Your task to perform on an android device: uninstall "TextNow: Call + Text Unlimited" Image 0: 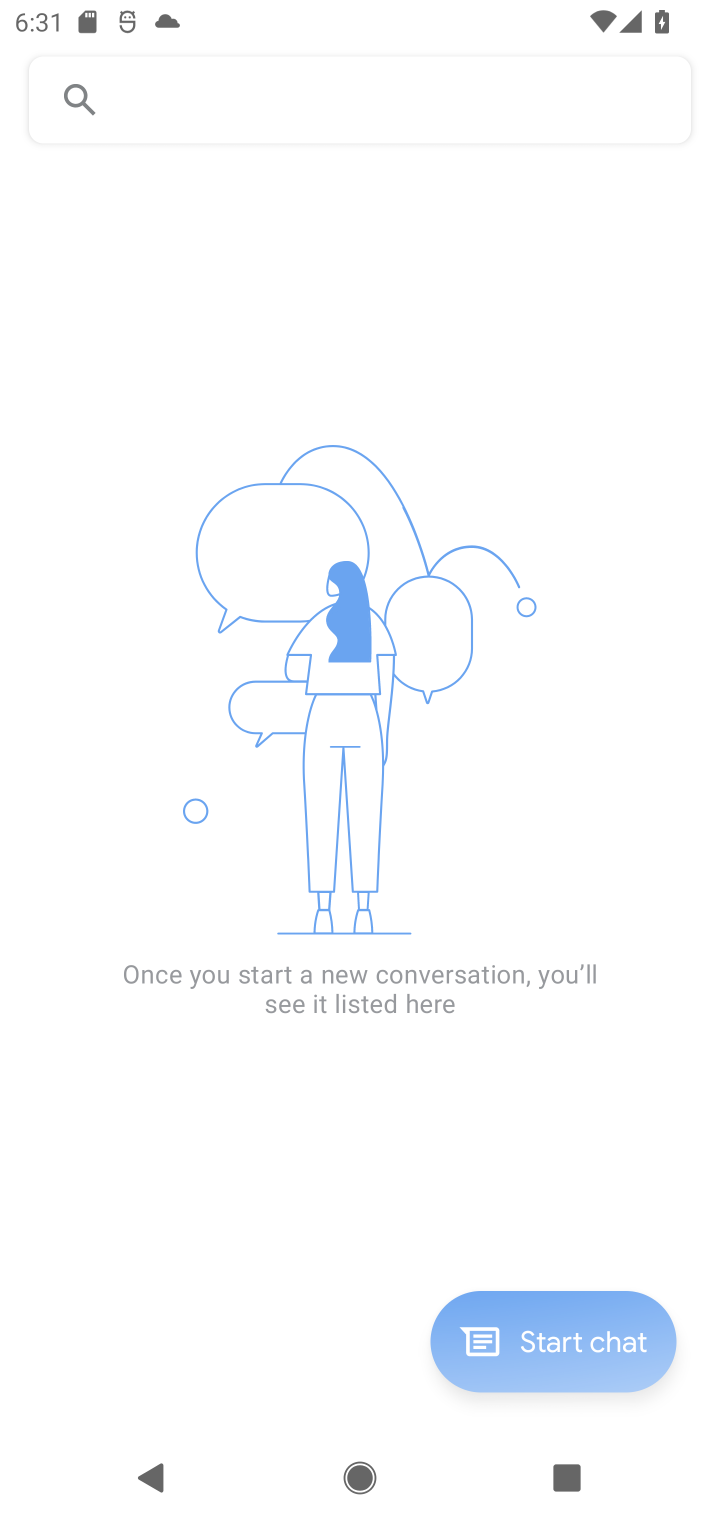
Step 0: press home button
Your task to perform on an android device: uninstall "TextNow: Call + Text Unlimited" Image 1: 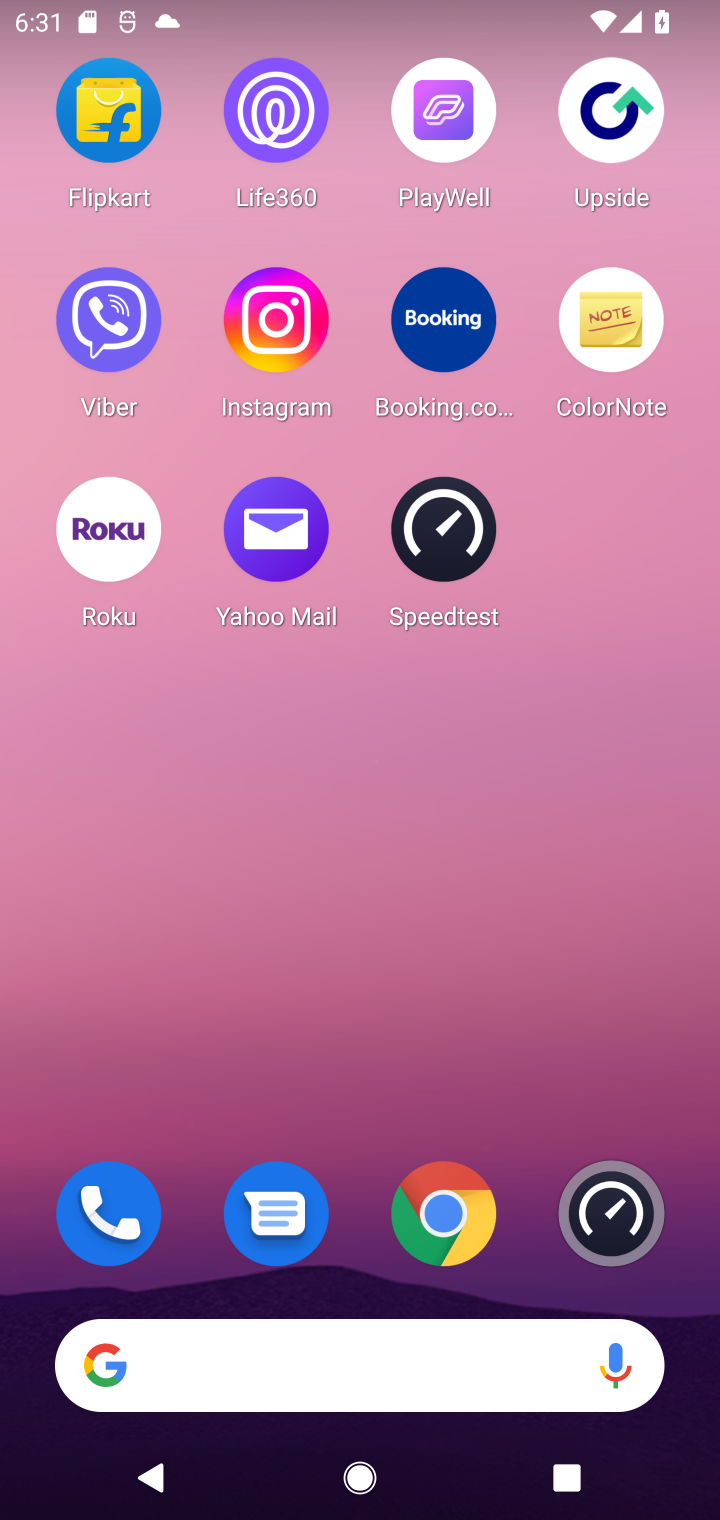
Step 1: drag from (357, 1190) to (413, 295)
Your task to perform on an android device: uninstall "TextNow: Call + Text Unlimited" Image 2: 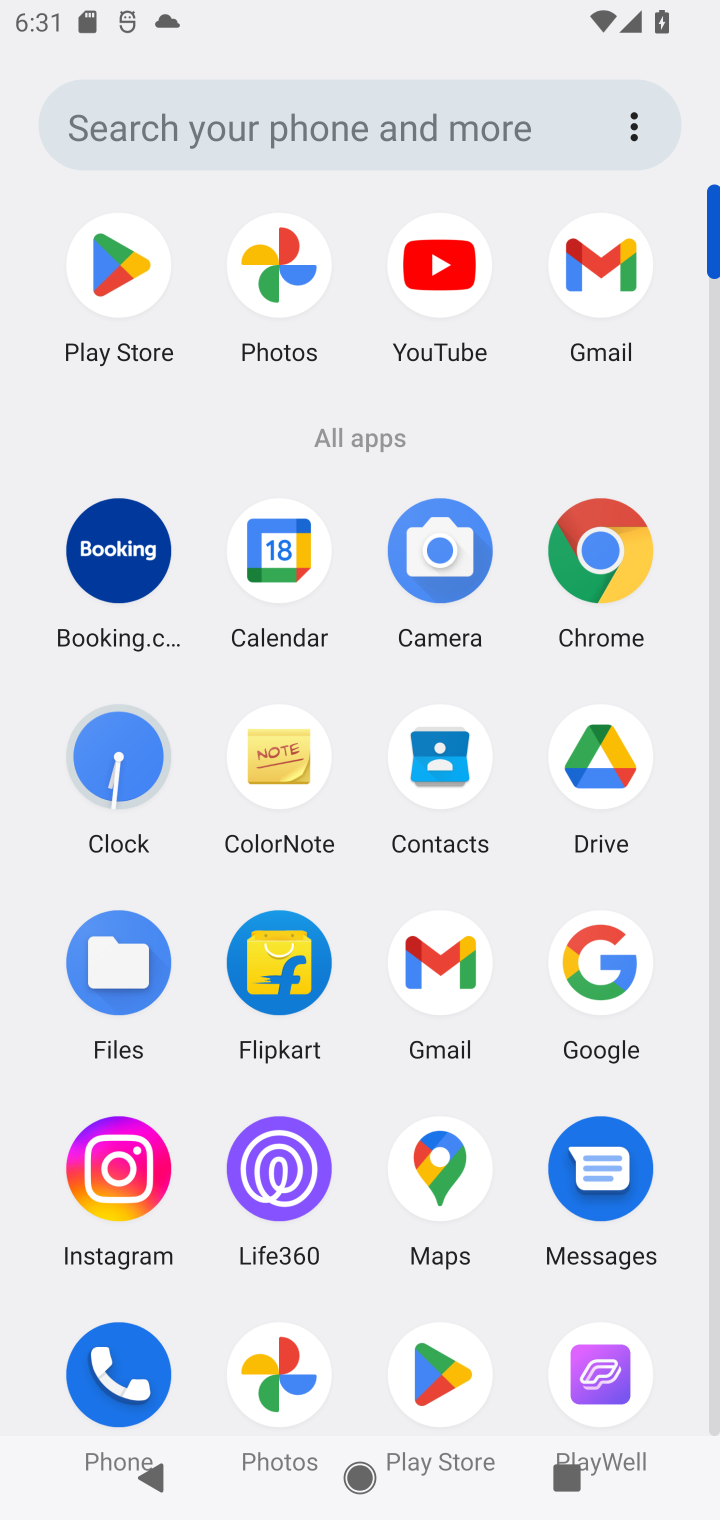
Step 2: click (431, 1363)
Your task to perform on an android device: uninstall "TextNow: Call + Text Unlimited" Image 3: 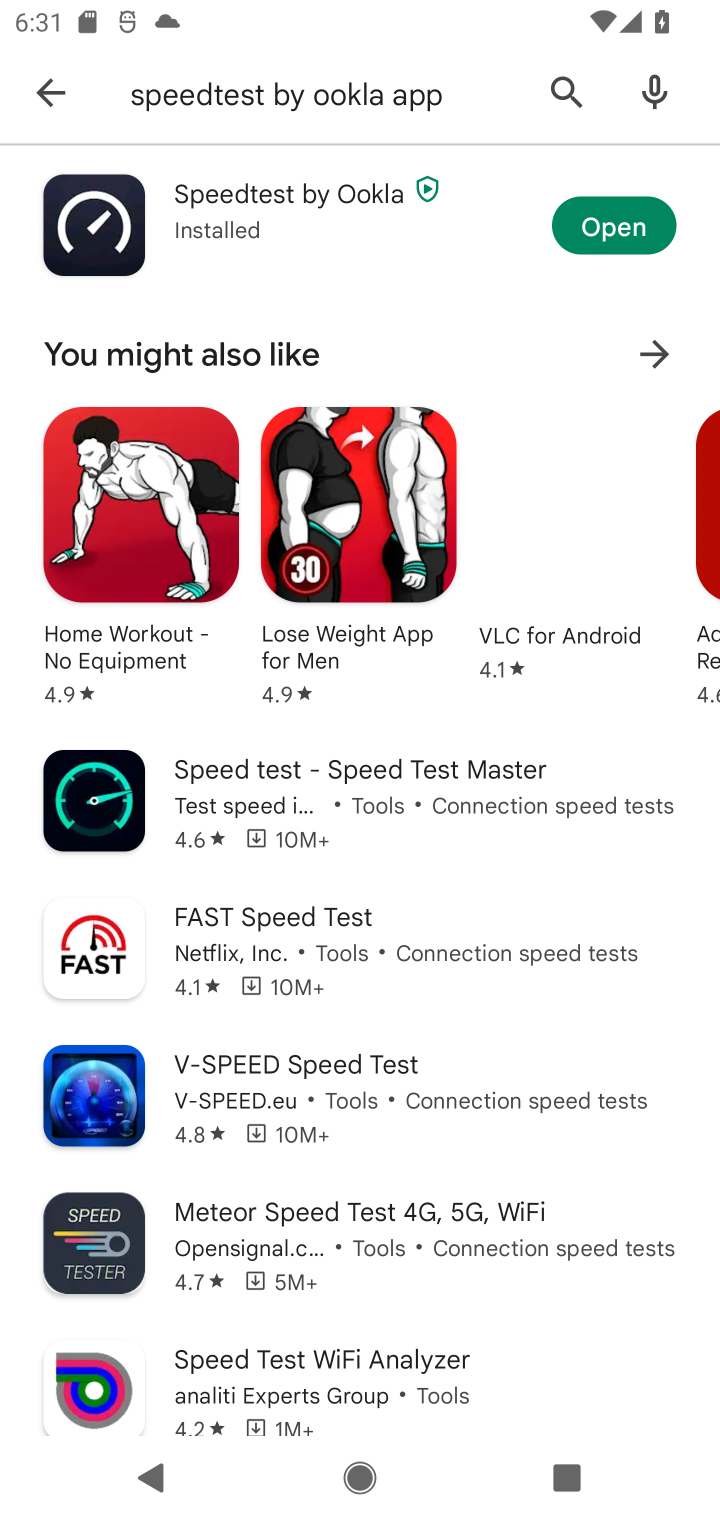
Step 3: click (557, 97)
Your task to perform on an android device: uninstall "TextNow: Call + Text Unlimited" Image 4: 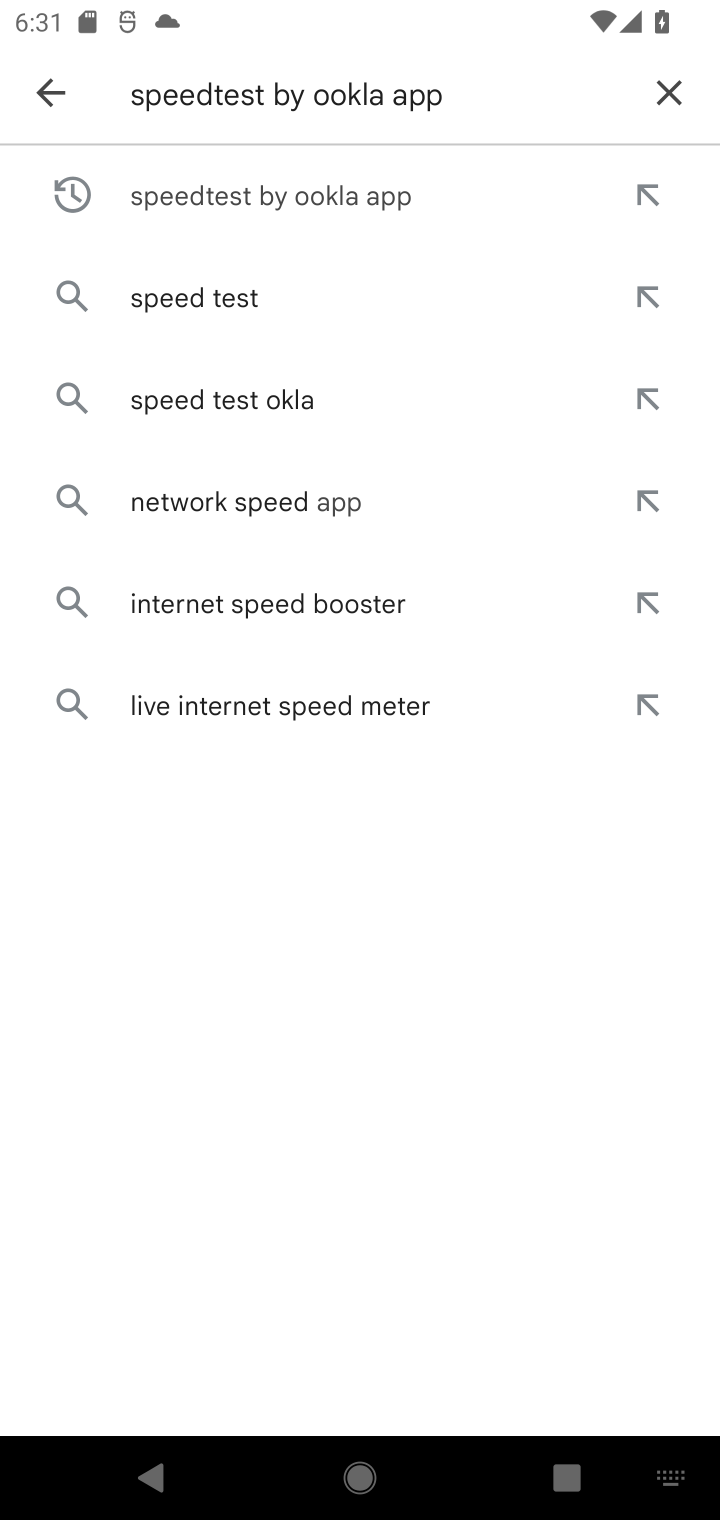
Step 4: click (663, 95)
Your task to perform on an android device: uninstall "TextNow: Call + Text Unlimited" Image 5: 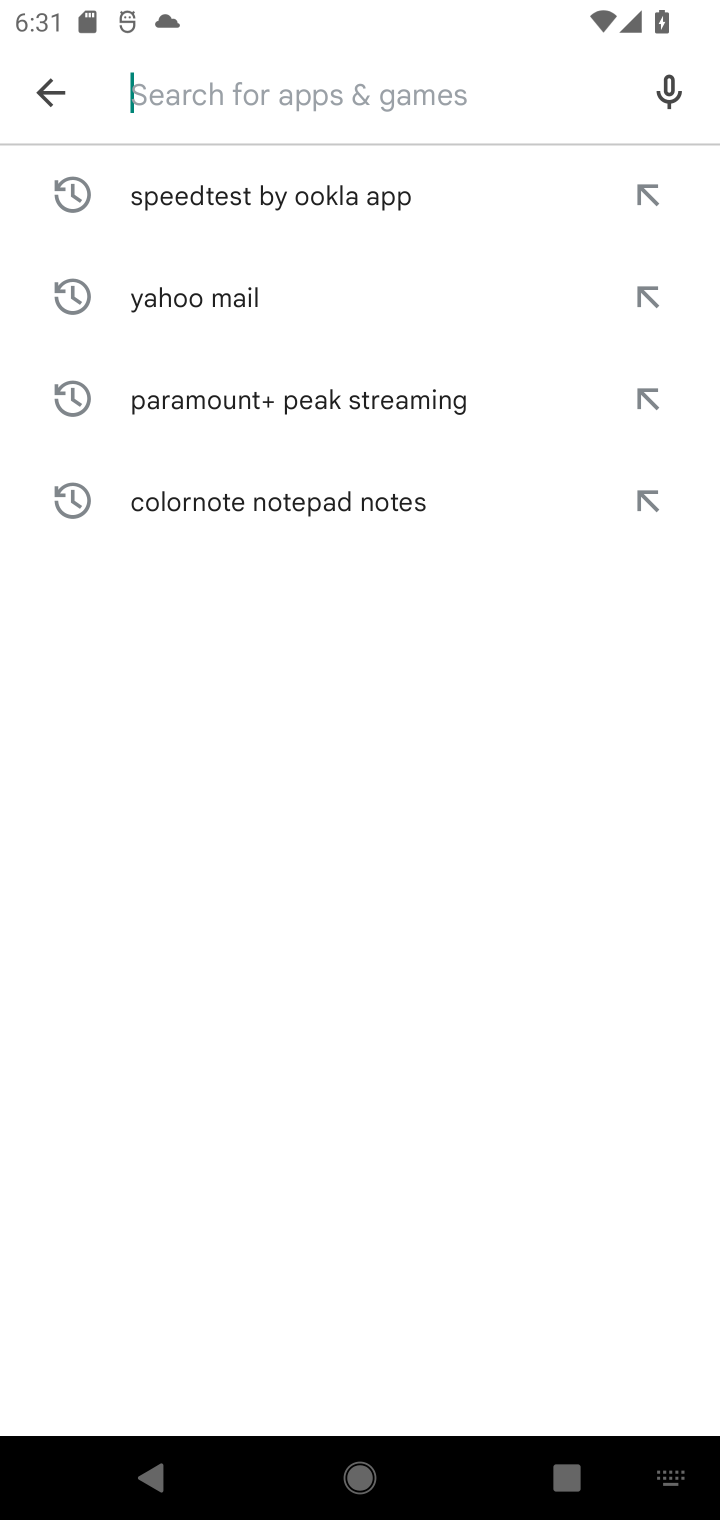
Step 5: type "TextNow: Call + Text Unlimited"
Your task to perform on an android device: uninstall "TextNow: Call + Text Unlimited" Image 6: 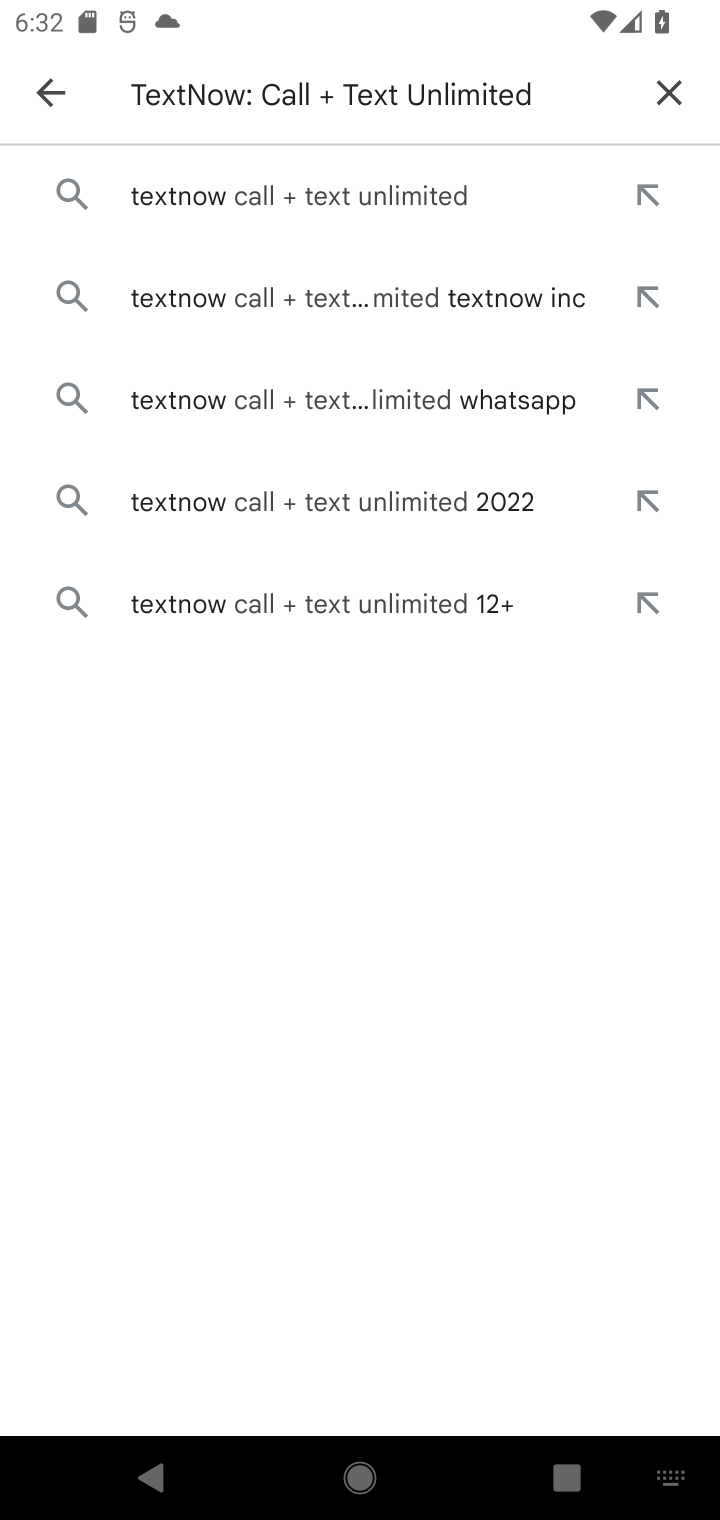
Step 6: click (313, 203)
Your task to perform on an android device: uninstall "TextNow: Call + Text Unlimited" Image 7: 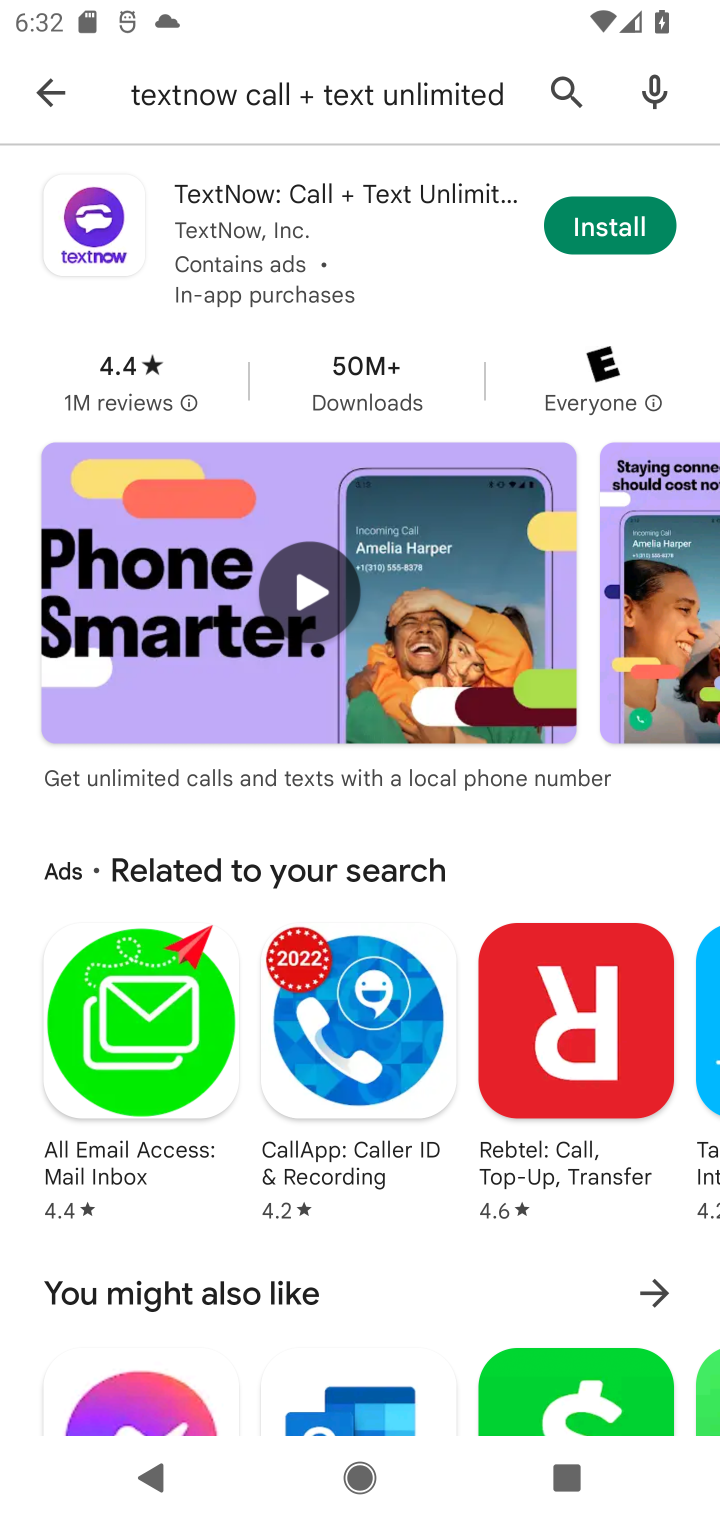
Step 7: task complete